Your task to perform on an android device: Check the news Image 0: 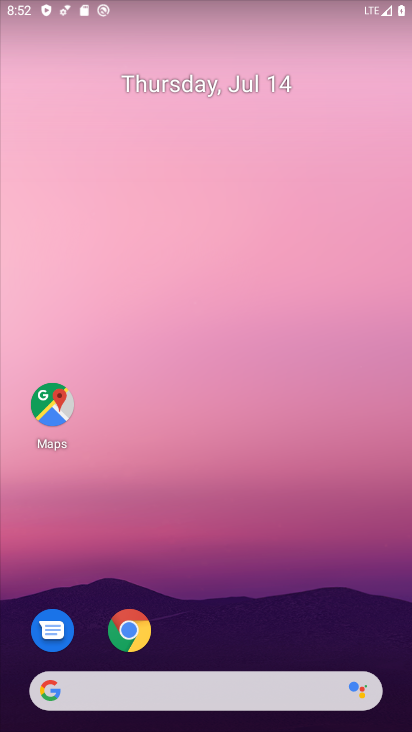
Step 0: click (206, 699)
Your task to perform on an android device: Check the news Image 1: 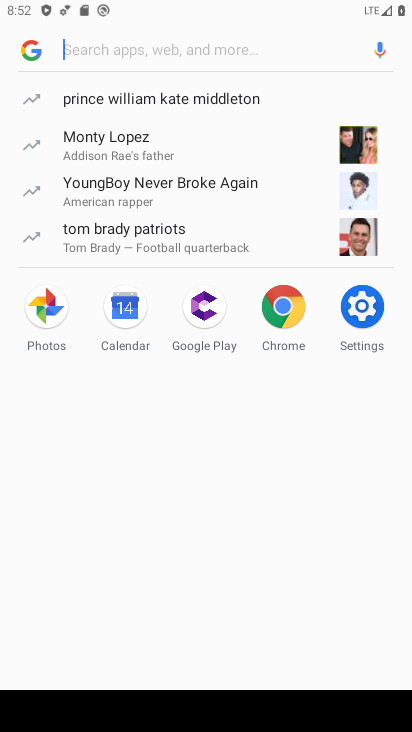
Step 1: type "news"
Your task to perform on an android device: Check the news Image 2: 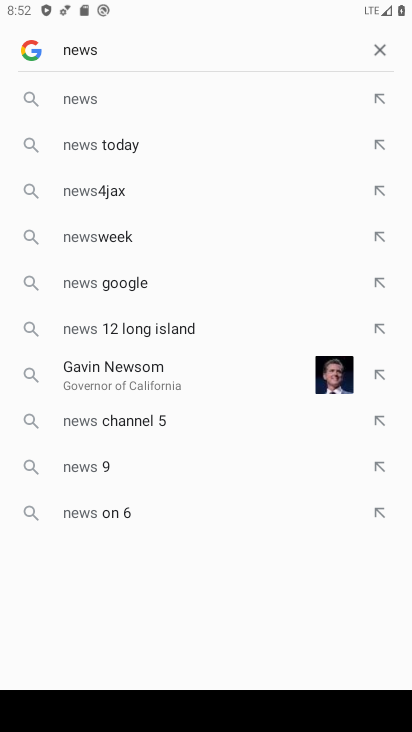
Step 2: click (92, 107)
Your task to perform on an android device: Check the news Image 3: 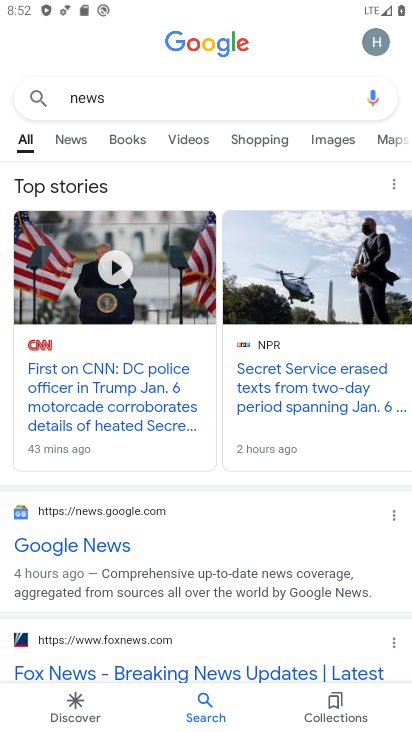
Step 3: click (65, 134)
Your task to perform on an android device: Check the news Image 4: 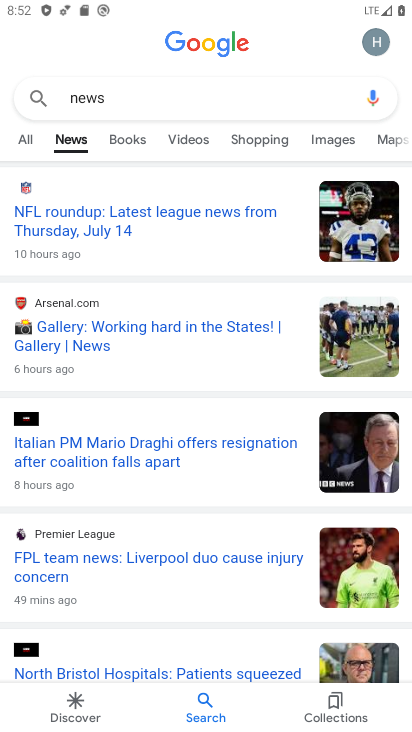
Step 4: task complete